Your task to perform on an android device: Go to location settings Image 0: 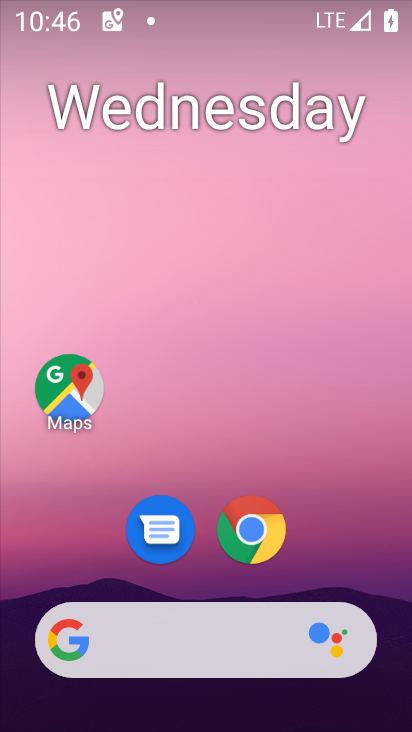
Step 0: drag from (399, 618) to (343, 70)
Your task to perform on an android device: Go to location settings Image 1: 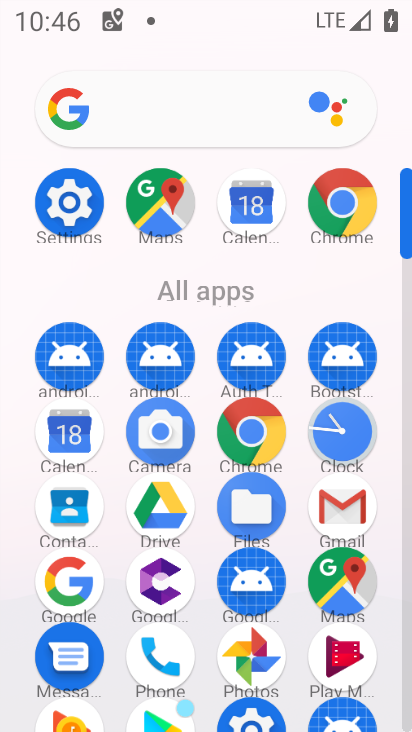
Step 1: click (405, 713)
Your task to perform on an android device: Go to location settings Image 2: 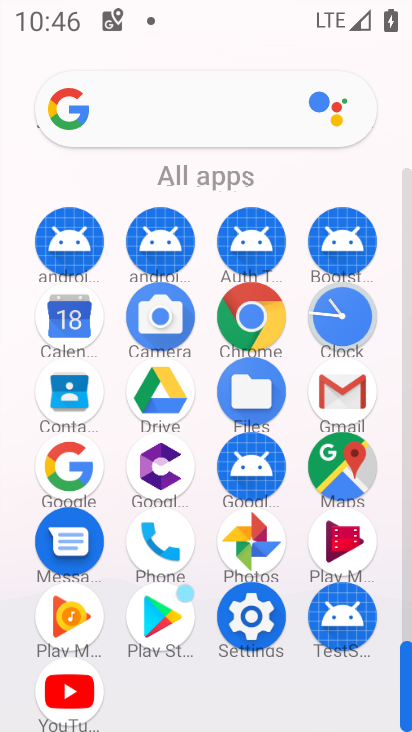
Step 2: click (253, 619)
Your task to perform on an android device: Go to location settings Image 3: 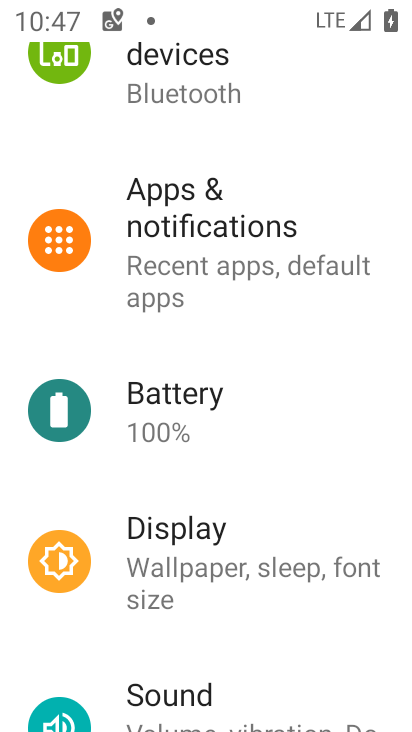
Step 3: drag from (349, 624) to (354, 225)
Your task to perform on an android device: Go to location settings Image 4: 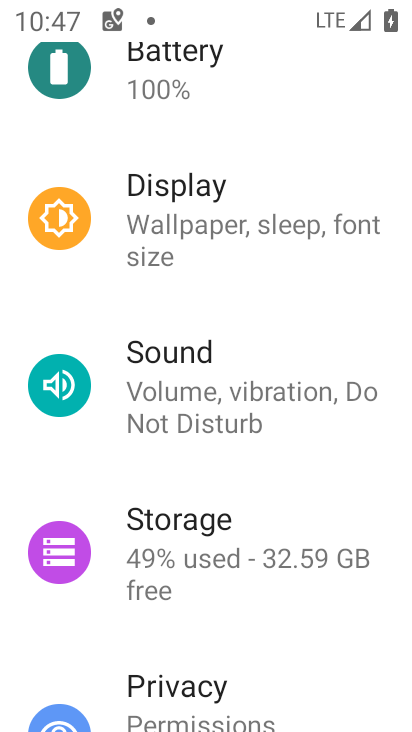
Step 4: drag from (351, 604) to (341, 377)
Your task to perform on an android device: Go to location settings Image 5: 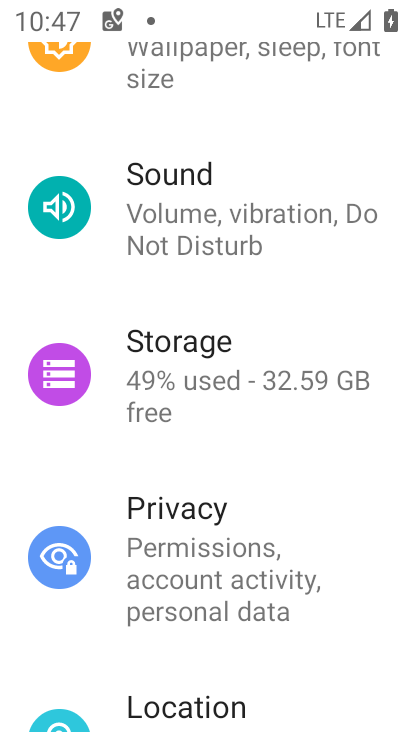
Step 5: drag from (325, 567) to (352, 148)
Your task to perform on an android device: Go to location settings Image 6: 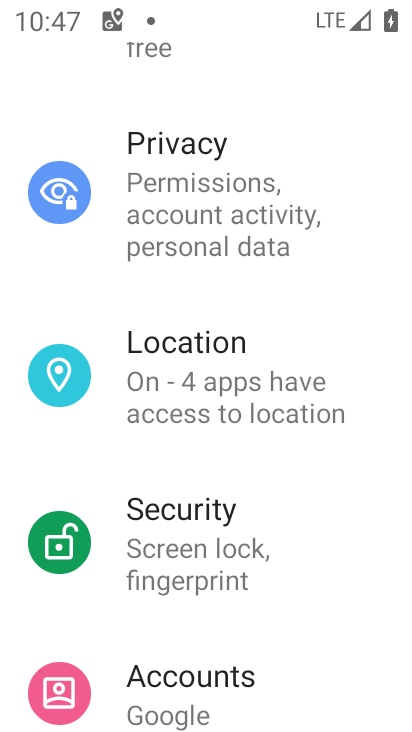
Step 6: click (180, 387)
Your task to perform on an android device: Go to location settings Image 7: 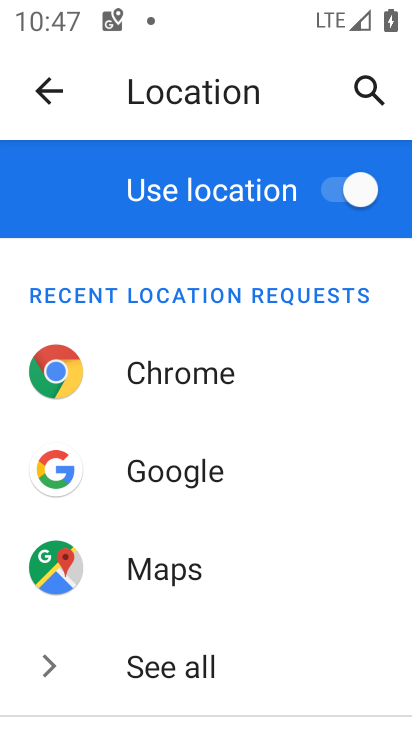
Step 7: drag from (321, 661) to (303, 274)
Your task to perform on an android device: Go to location settings Image 8: 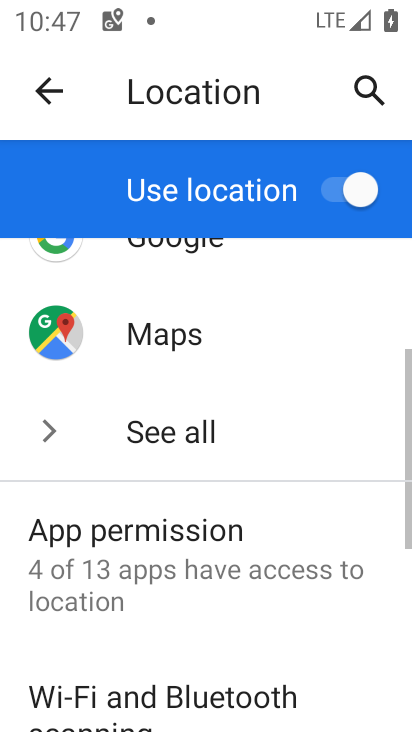
Step 8: drag from (295, 618) to (310, 219)
Your task to perform on an android device: Go to location settings Image 9: 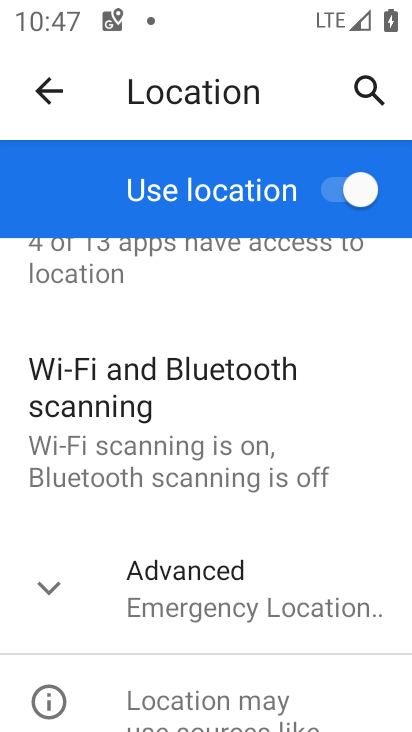
Step 9: click (39, 589)
Your task to perform on an android device: Go to location settings Image 10: 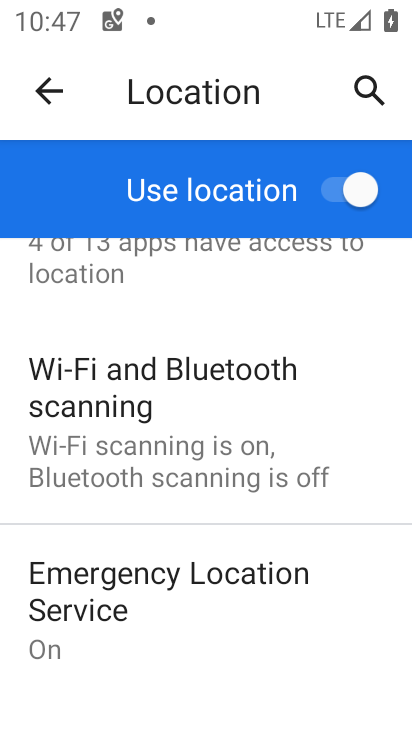
Step 10: task complete